Your task to perform on an android device: Open Google Maps and go to "Timeline" Image 0: 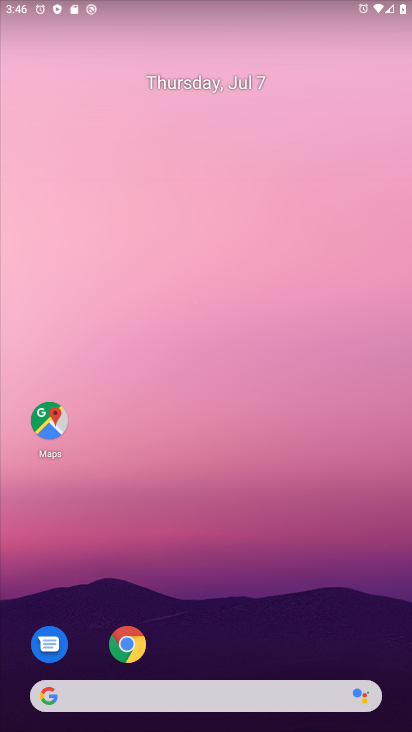
Step 0: click (68, 442)
Your task to perform on an android device: Open Google Maps and go to "Timeline" Image 1: 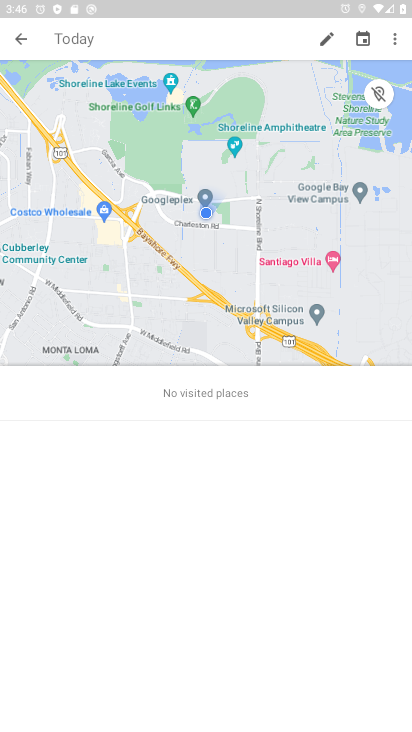
Step 1: task complete